Your task to perform on an android device: Open ESPN.com Image 0: 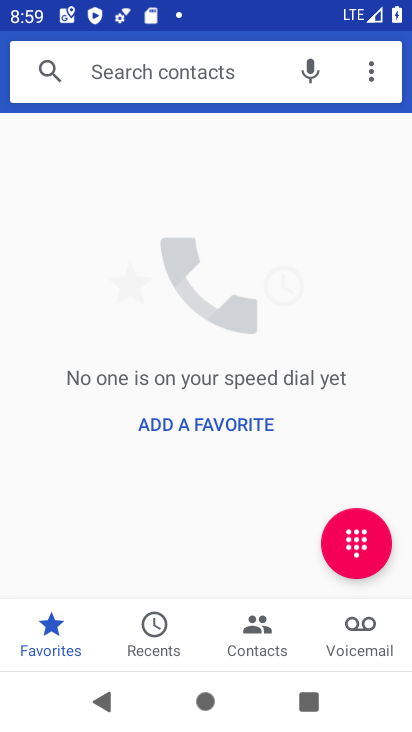
Step 0: press home button
Your task to perform on an android device: Open ESPN.com Image 1: 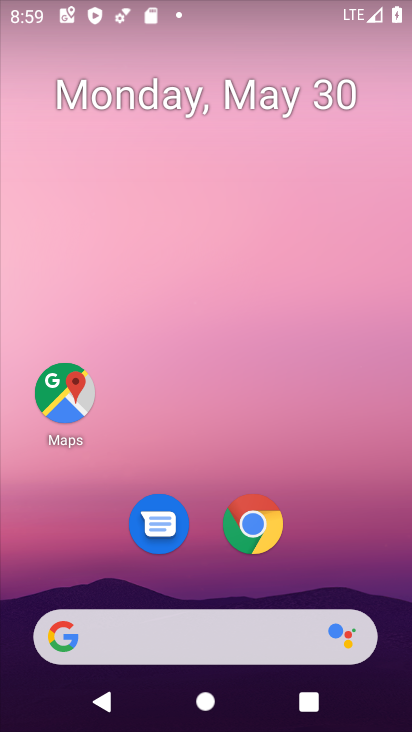
Step 1: click (275, 653)
Your task to perform on an android device: Open ESPN.com Image 2: 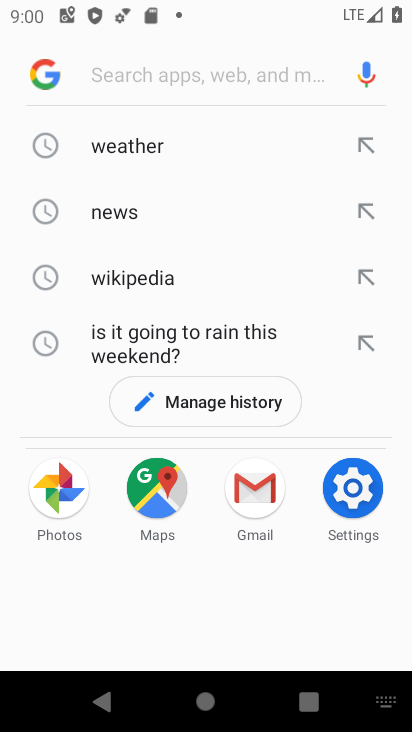
Step 2: type "espn.com"
Your task to perform on an android device: Open ESPN.com Image 3: 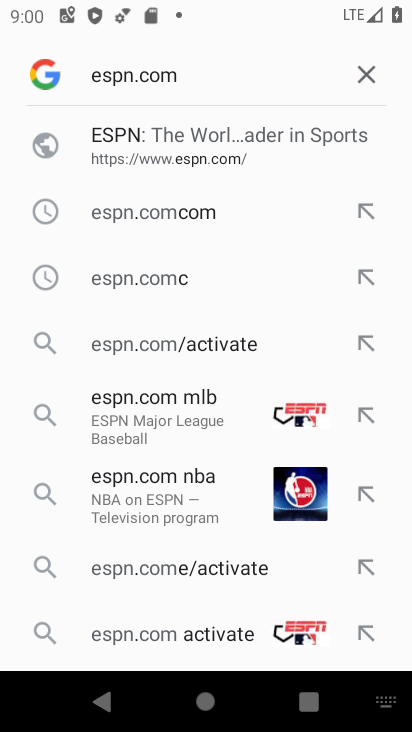
Step 3: click (123, 153)
Your task to perform on an android device: Open ESPN.com Image 4: 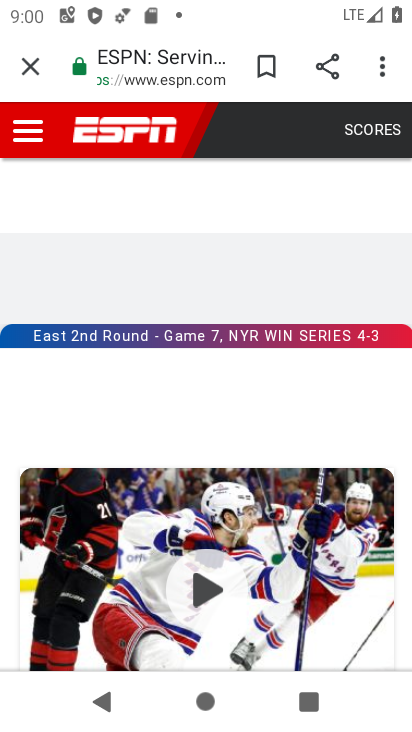
Step 4: task complete